Your task to perform on an android device: Open ESPN.com Image 0: 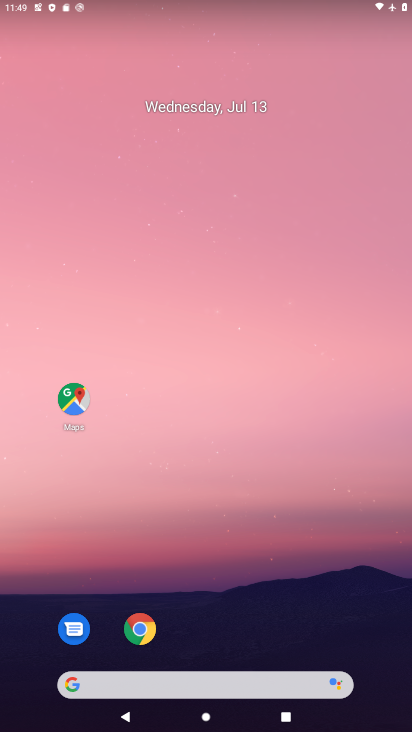
Step 0: drag from (212, 515) to (111, 171)
Your task to perform on an android device: Open ESPN.com Image 1: 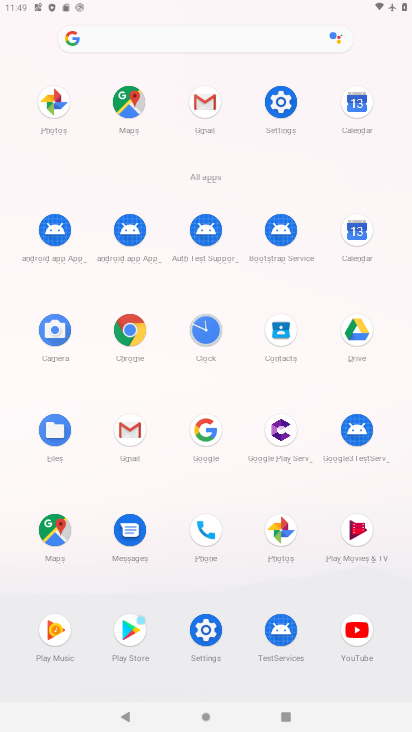
Step 1: drag from (235, 700) to (171, 10)
Your task to perform on an android device: Open ESPN.com Image 2: 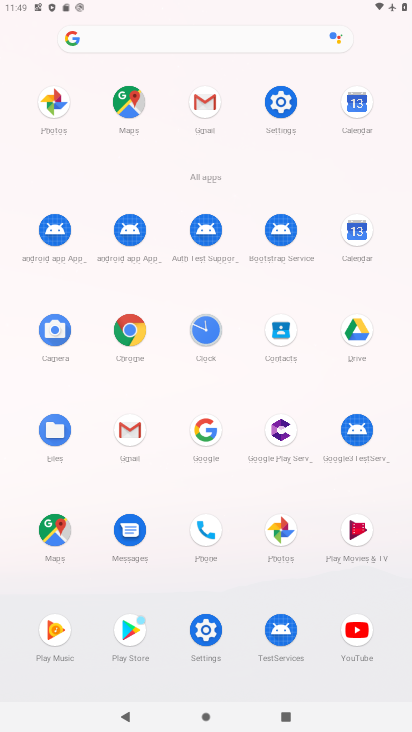
Step 2: click (140, 338)
Your task to perform on an android device: Open ESPN.com Image 3: 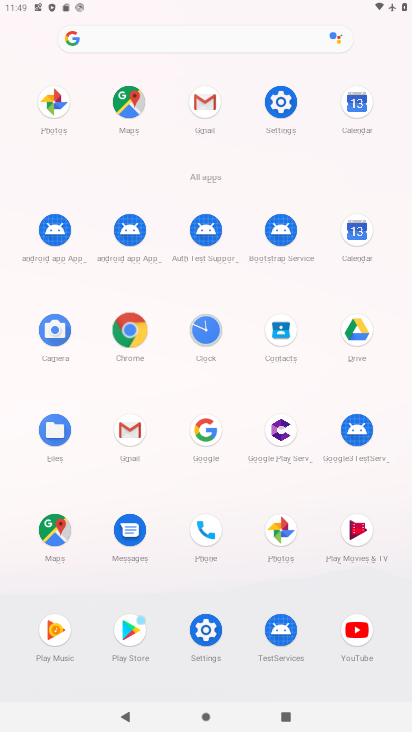
Step 3: click (136, 330)
Your task to perform on an android device: Open ESPN.com Image 4: 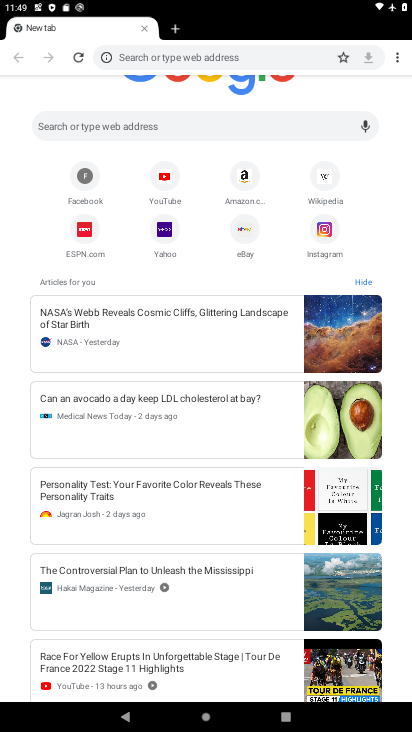
Step 4: click (83, 221)
Your task to perform on an android device: Open ESPN.com Image 5: 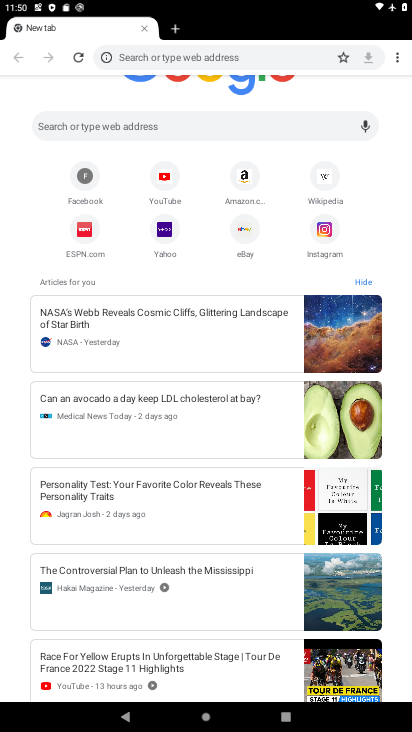
Step 5: click (85, 218)
Your task to perform on an android device: Open ESPN.com Image 6: 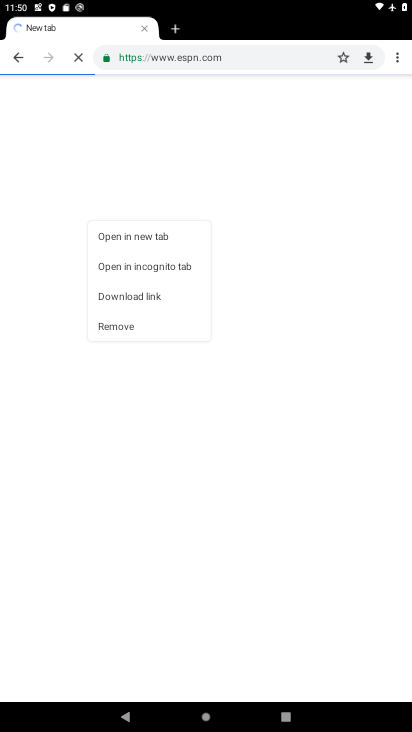
Step 6: click (90, 224)
Your task to perform on an android device: Open ESPN.com Image 7: 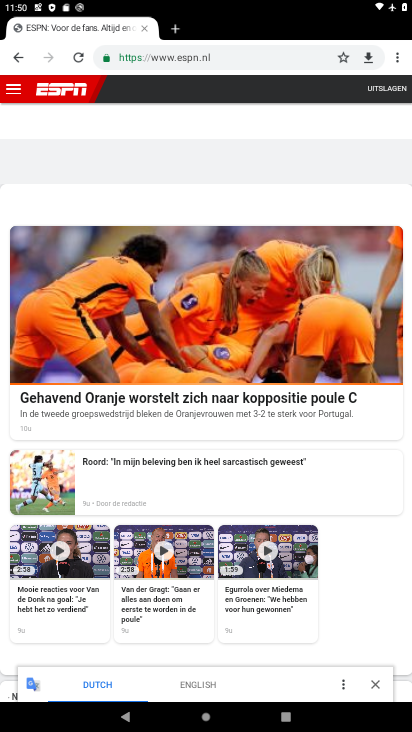
Step 7: task complete